Your task to perform on an android device: change the clock display to analog Image 0: 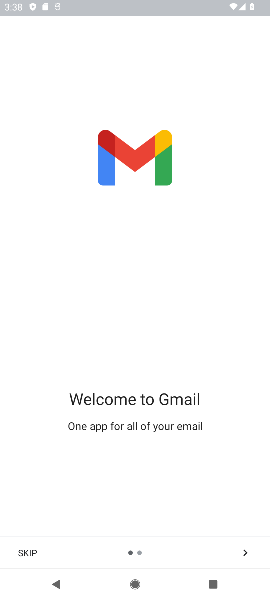
Step 0: task impossible